Your task to perform on an android device: Open privacy settings Image 0: 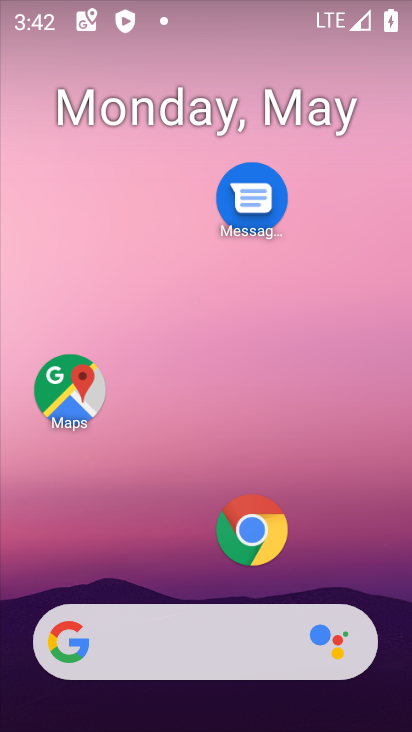
Step 0: drag from (150, 546) to (191, 99)
Your task to perform on an android device: Open privacy settings Image 1: 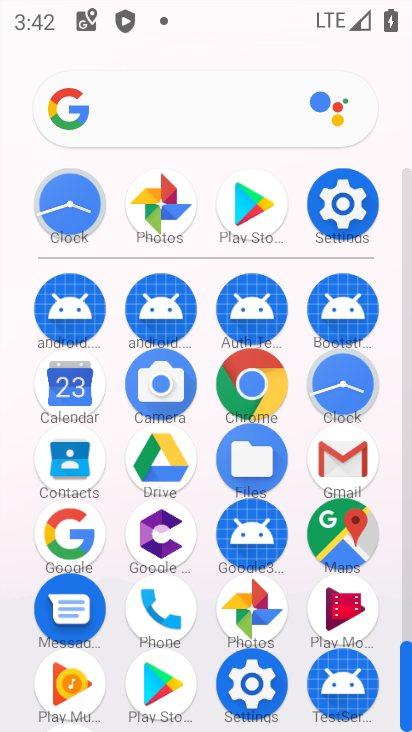
Step 1: click (343, 196)
Your task to perform on an android device: Open privacy settings Image 2: 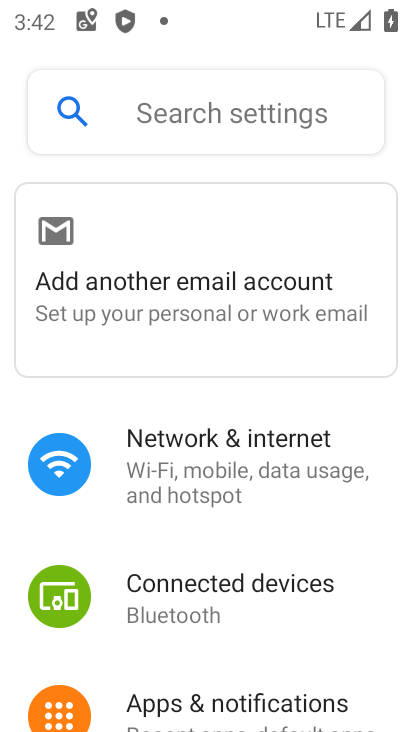
Step 2: drag from (191, 674) to (250, 127)
Your task to perform on an android device: Open privacy settings Image 3: 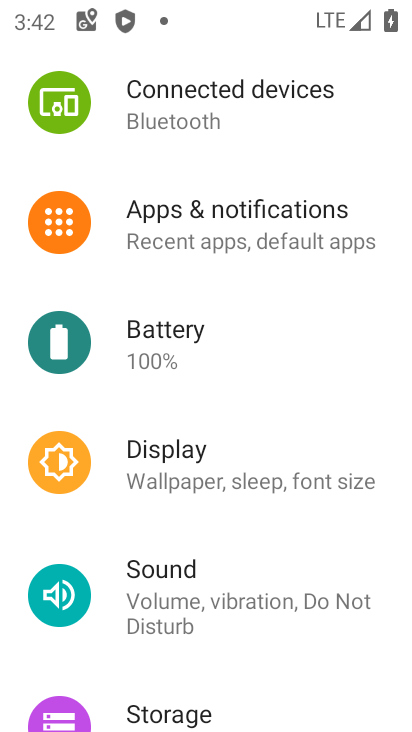
Step 3: drag from (170, 682) to (238, 68)
Your task to perform on an android device: Open privacy settings Image 4: 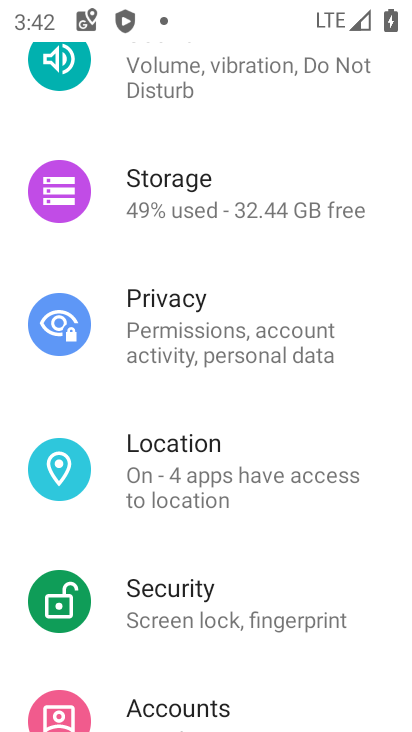
Step 4: click (199, 335)
Your task to perform on an android device: Open privacy settings Image 5: 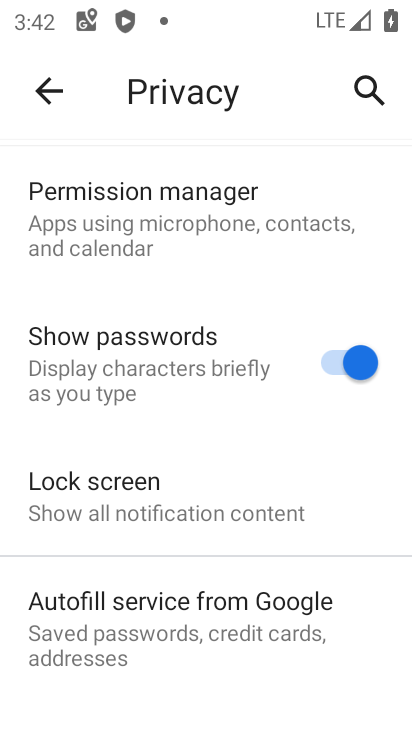
Step 5: task complete